Your task to perform on an android device: snooze an email in the gmail app Image 0: 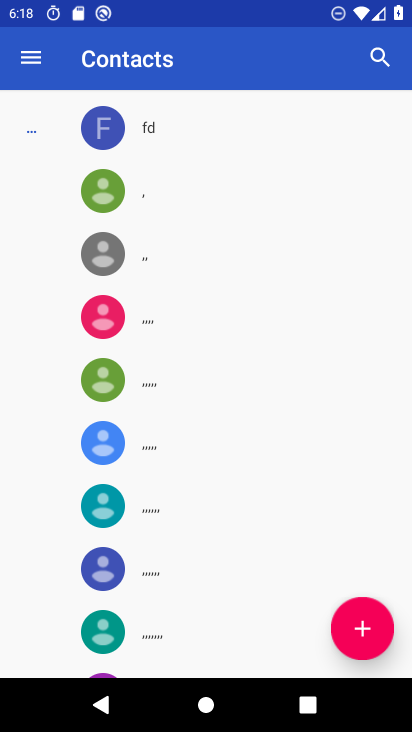
Step 0: press home button
Your task to perform on an android device: snooze an email in the gmail app Image 1: 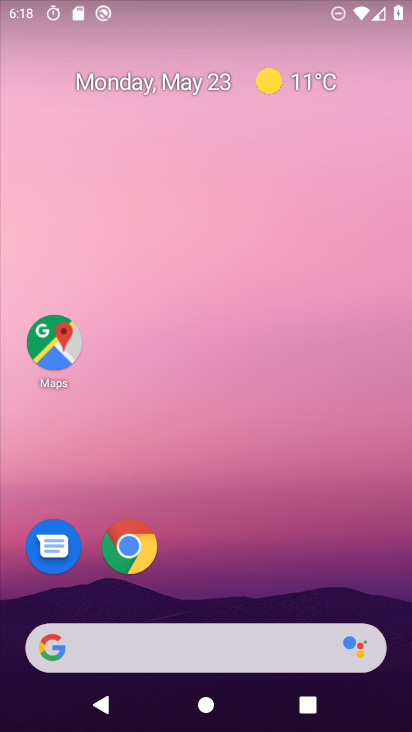
Step 1: drag from (242, 547) to (229, 105)
Your task to perform on an android device: snooze an email in the gmail app Image 2: 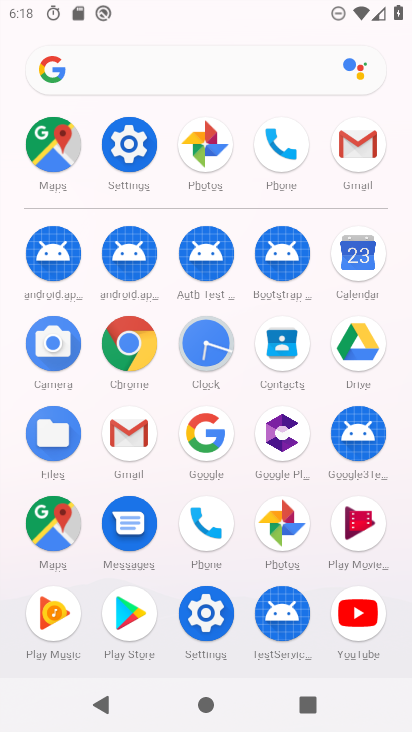
Step 2: click (133, 442)
Your task to perform on an android device: snooze an email in the gmail app Image 3: 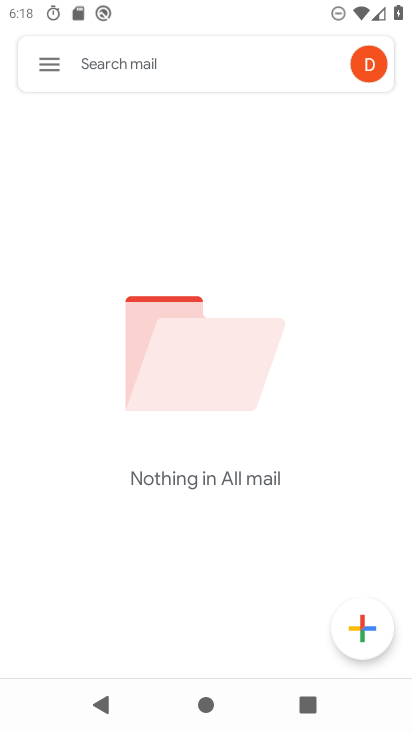
Step 3: task complete